Your task to perform on an android device: Open my contact list Image 0: 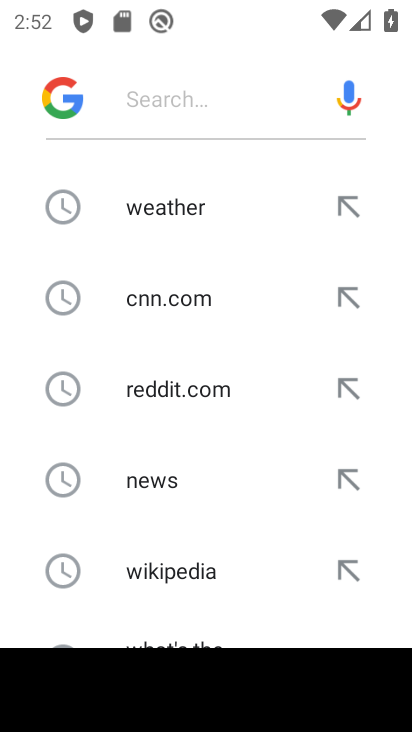
Step 0: press back button
Your task to perform on an android device: Open my contact list Image 1: 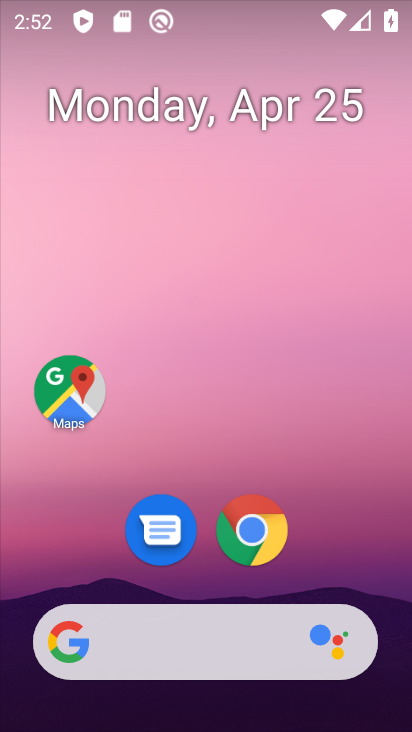
Step 1: drag from (157, 301) to (239, 0)
Your task to perform on an android device: Open my contact list Image 2: 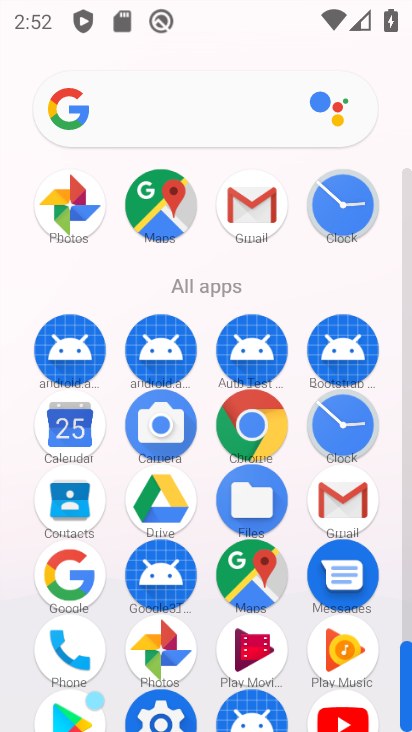
Step 2: click (83, 514)
Your task to perform on an android device: Open my contact list Image 3: 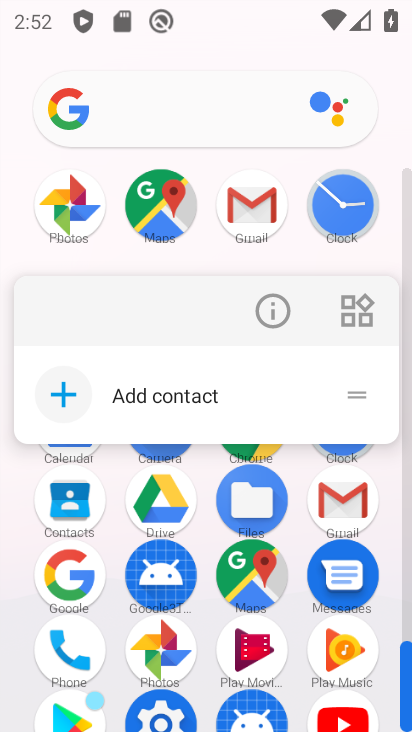
Step 3: click (82, 514)
Your task to perform on an android device: Open my contact list Image 4: 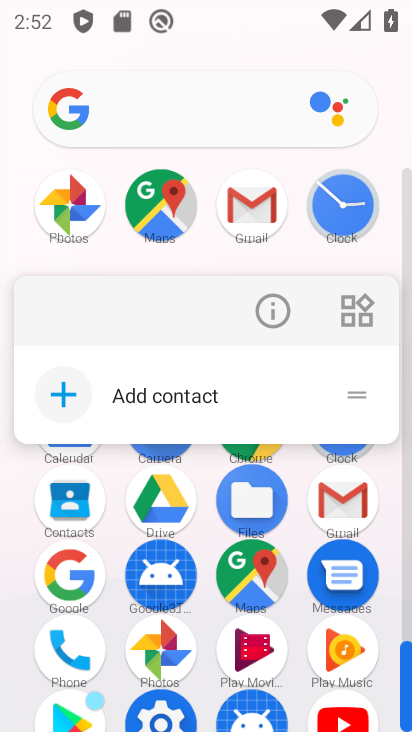
Step 4: click (81, 512)
Your task to perform on an android device: Open my contact list Image 5: 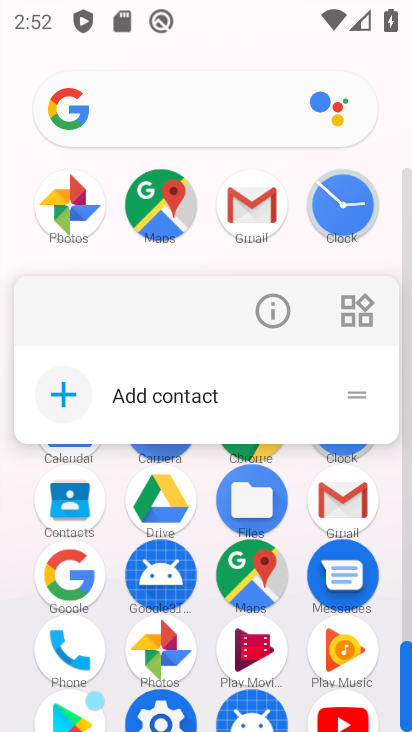
Step 5: click (63, 497)
Your task to perform on an android device: Open my contact list Image 6: 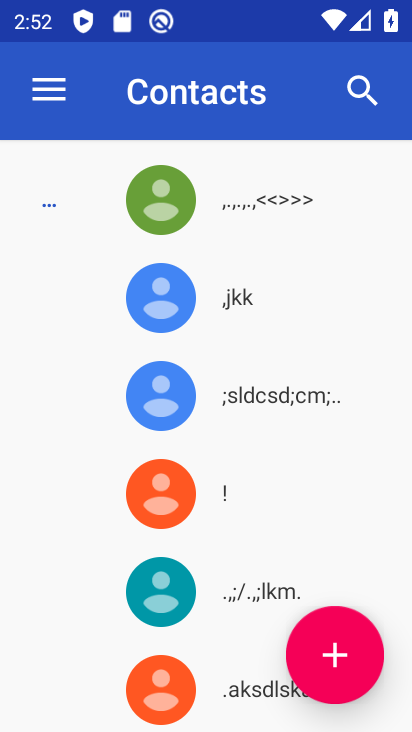
Step 6: task complete